Your task to perform on an android device: see sites visited before in the chrome app Image 0: 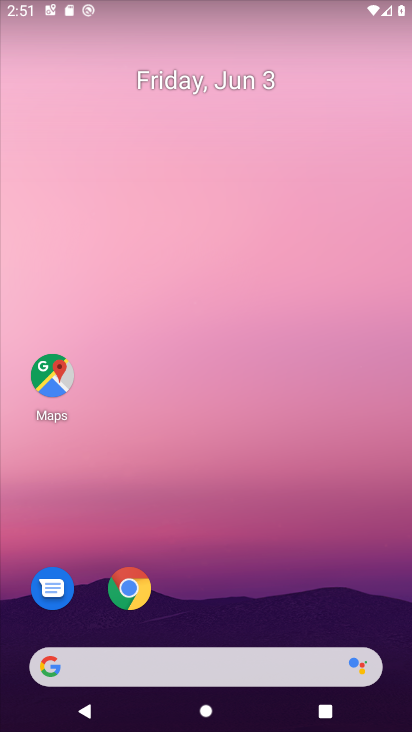
Step 0: drag from (205, 642) to (233, 117)
Your task to perform on an android device: see sites visited before in the chrome app Image 1: 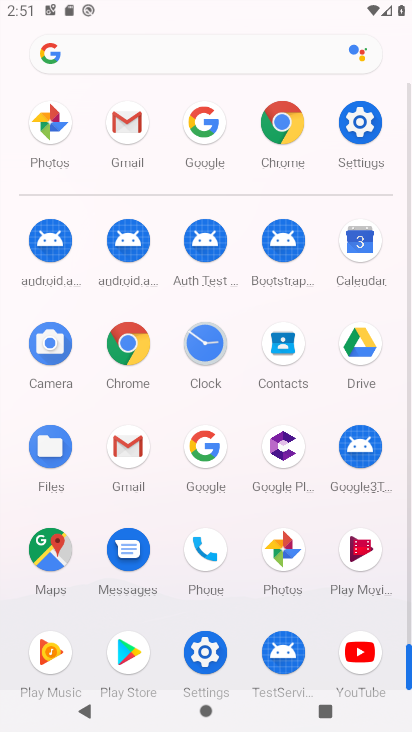
Step 1: click (112, 359)
Your task to perform on an android device: see sites visited before in the chrome app Image 2: 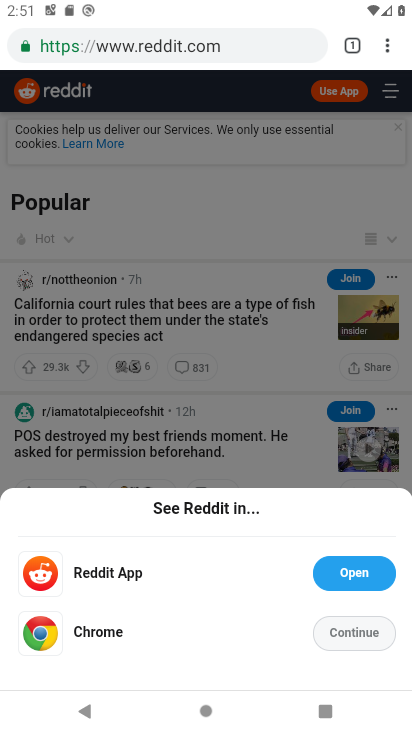
Step 2: click (398, 49)
Your task to perform on an android device: see sites visited before in the chrome app Image 3: 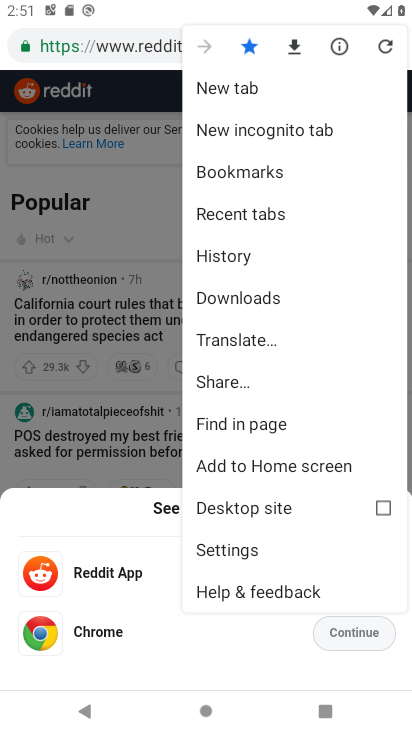
Step 3: click (236, 256)
Your task to perform on an android device: see sites visited before in the chrome app Image 4: 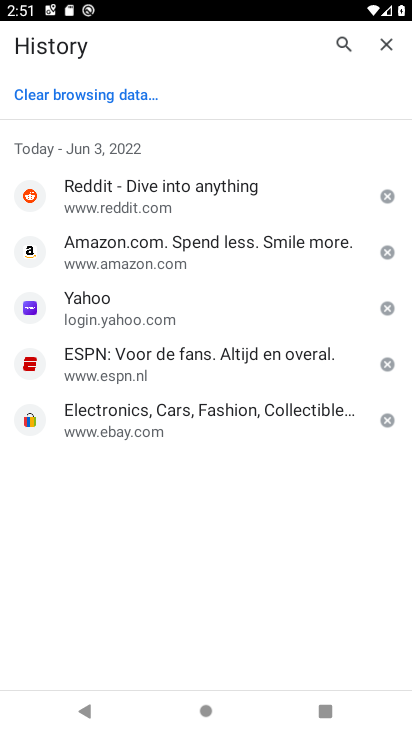
Step 4: task complete